Your task to perform on an android device: change the clock display to show seconds Image 0: 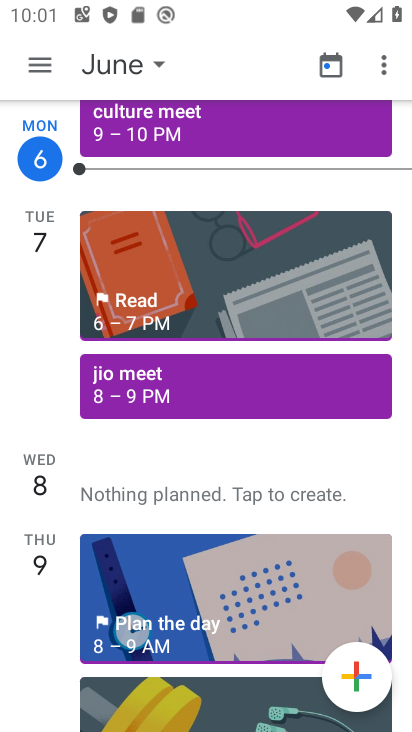
Step 0: press home button
Your task to perform on an android device: change the clock display to show seconds Image 1: 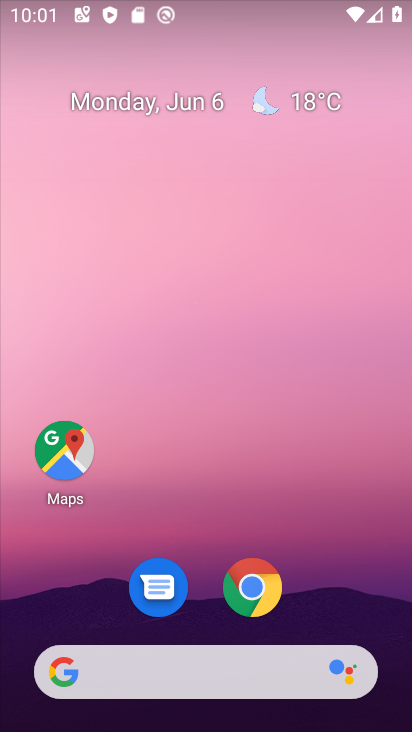
Step 1: drag from (301, 537) to (267, 0)
Your task to perform on an android device: change the clock display to show seconds Image 2: 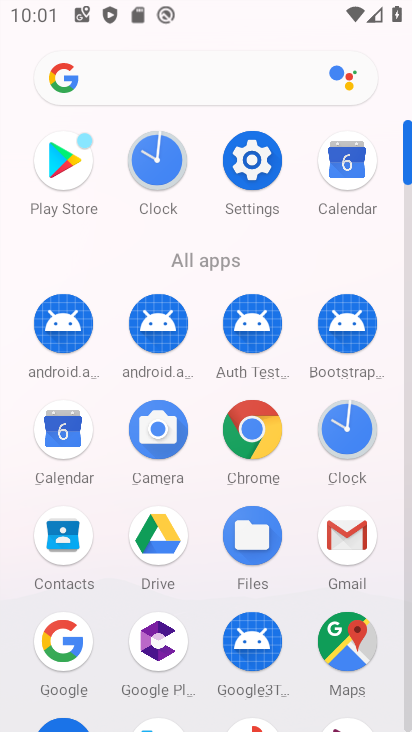
Step 2: click (149, 153)
Your task to perform on an android device: change the clock display to show seconds Image 3: 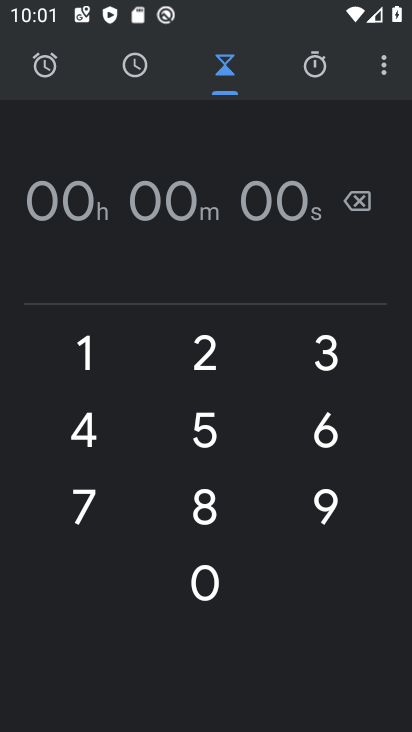
Step 3: click (381, 52)
Your task to perform on an android device: change the clock display to show seconds Image 4: 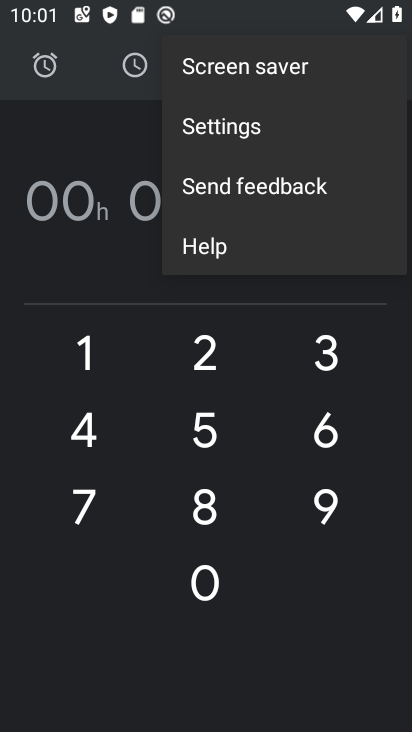
Step 4: click (303, 110)
Your task to perform on an android device: change the clock display to show seconds Image 5: 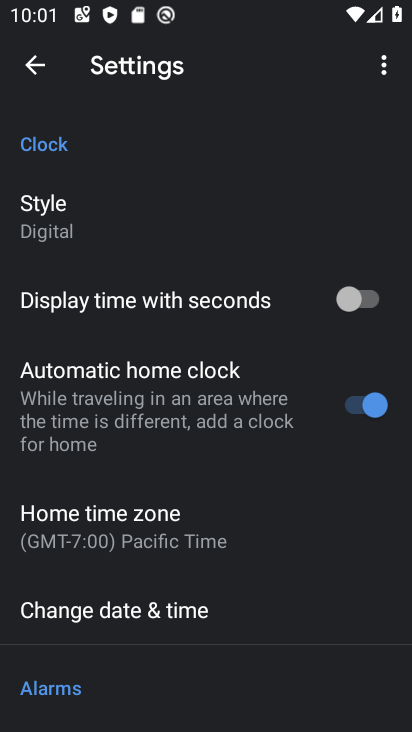
Step 5: drag from (159, 607) to (265, 194)
Your task to perform on an android device: change the clock display to show seconds Image 6: 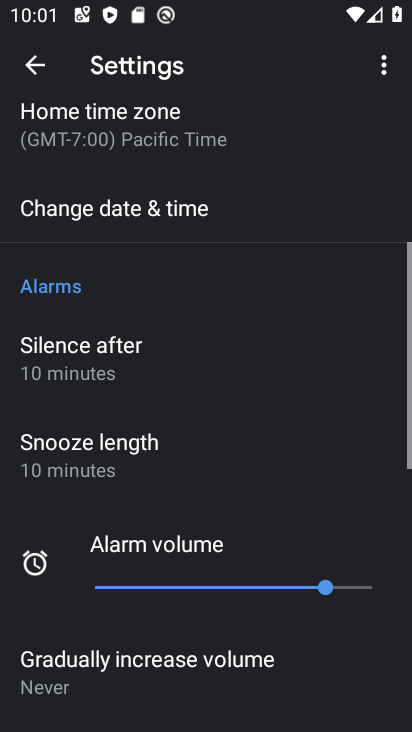
Step 6: drag from (207, 602) to (232, 324)
Your task to perform on an android device: change the clock display to show seconds Image 7: 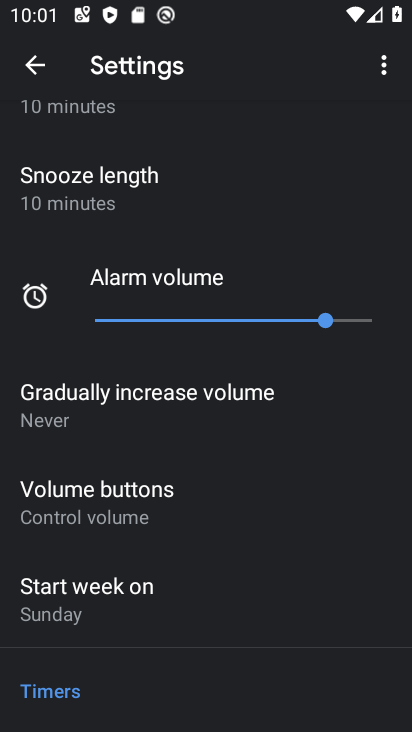
Step 7: drag from (168, 555) to (219, 125)
Your task to perform on an android device: change the clock display to show seconds Image 8: 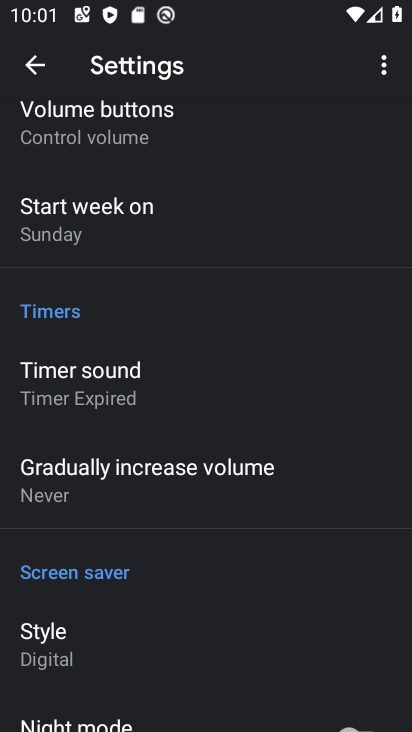
Step 8: drag from (194, 633) to (259, 47)
Your task to perform on an android device: change the clock display to show seconds Image 9: 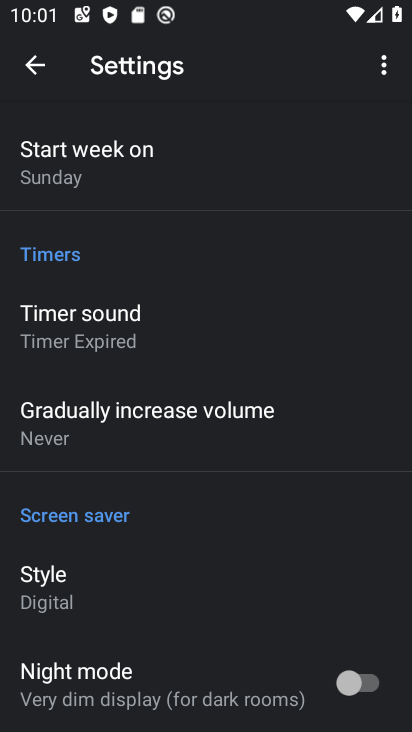
Step 9: drag from (297, 227) to (278, 394)
Your task to perform on an android device: change the clock display to show seconds Image 10: 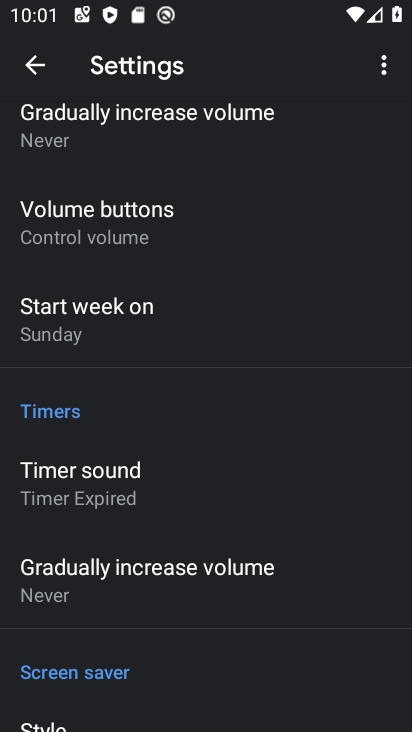
Step 10: drag from (258, 88) to (254, 484)
Your task to perform on an android device: change the clock display to show seconds Image 11: 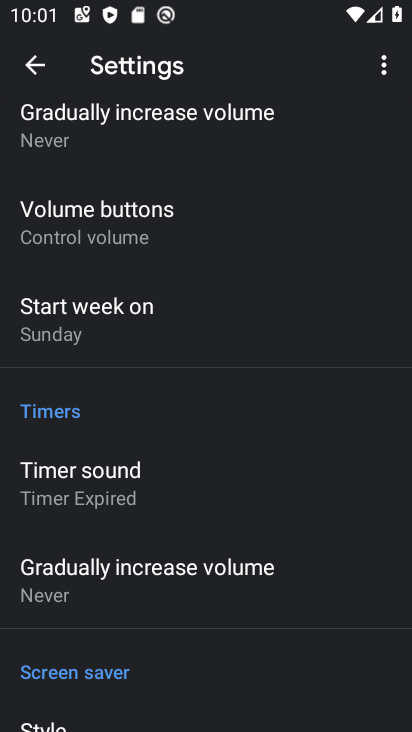
Step 11: drag from (242, 215) to (259, 604)
Your task to perform on an android device: change the clock display to show seconds Image 12: 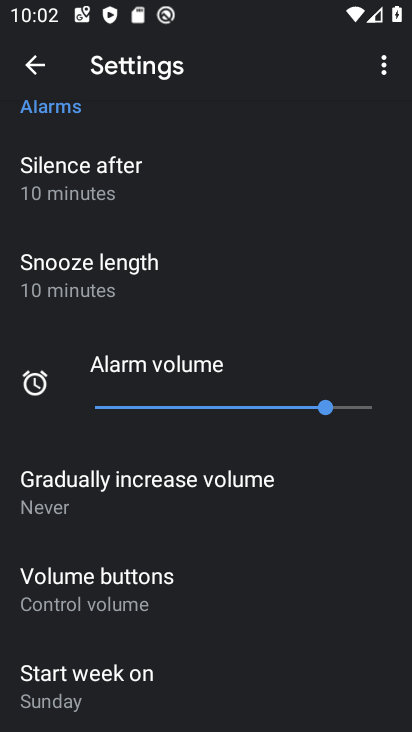
Step 12: drag from (297, 279) to (325, 632)
Your task to perform on an android device: change the clock display to show seconds Image 13: 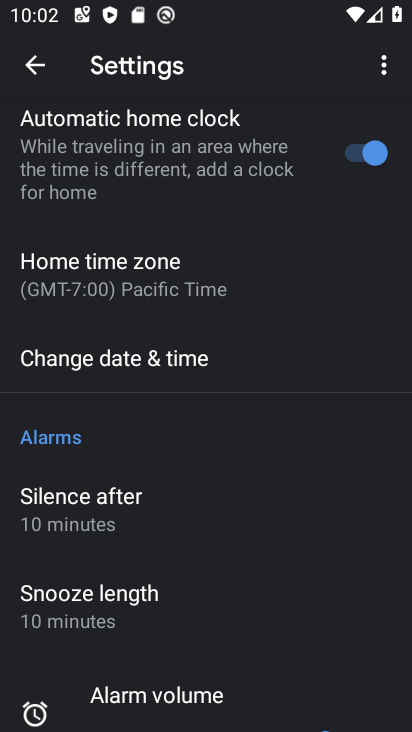
Step 13: drag from (302, 299) to (329, 519)
Your task to perform on an android device: change the clock display to show seconds Image 14: 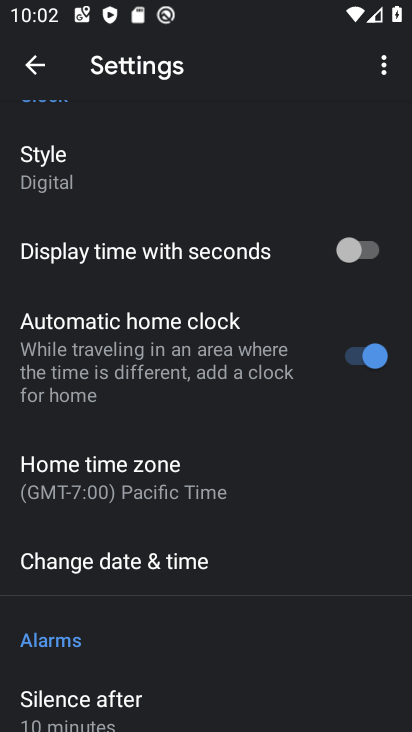
Step 14: drag from (278, 200) to (284, 568)
Your task to perform on an android device: change the clock display to show seconds Image 15: 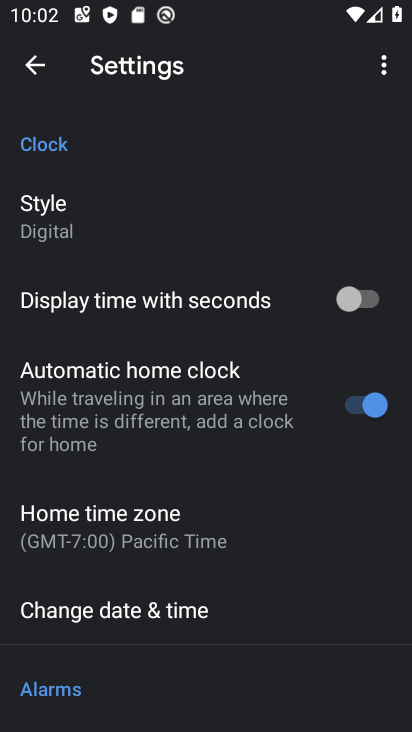
Step 15: click (378, 64)
Your task to perform on an android device: change the clock display to show seconds Image 16: 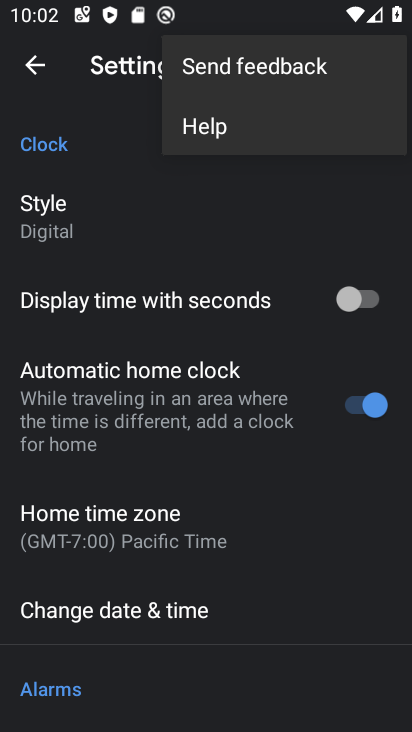
Step 16: click (369, 565)
Your task to perform on an android device: change the clock display to show seconds Image 17: 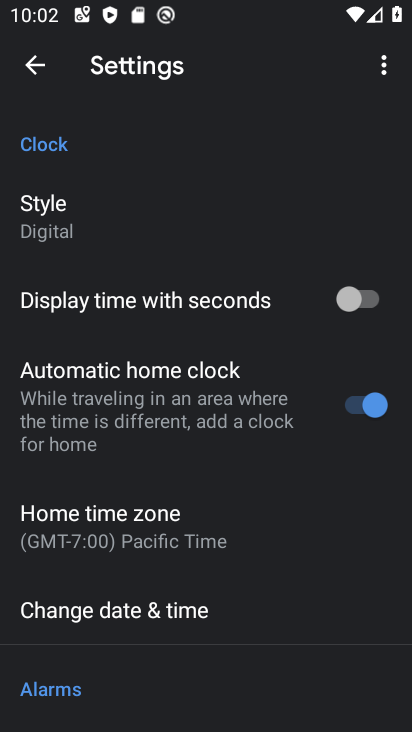
Step 17: drag from (296, 633) to (290, 411)
Your task to perform on an android device: change the clock display to show seconds Image 18: 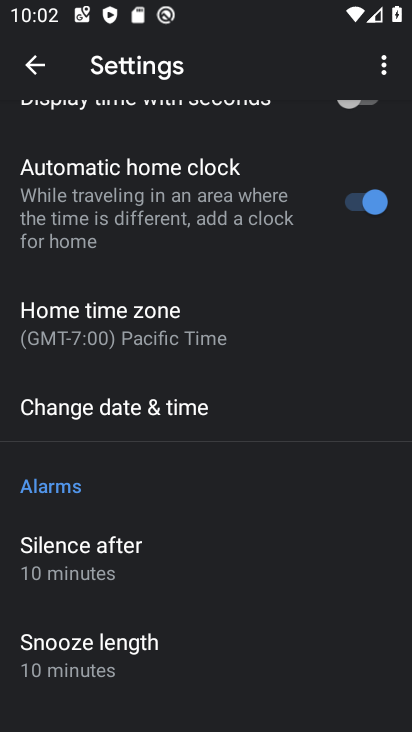
Step 18: click (236, 650)
Your task to perform on an android device: change the clock display to show seconds Image 19: 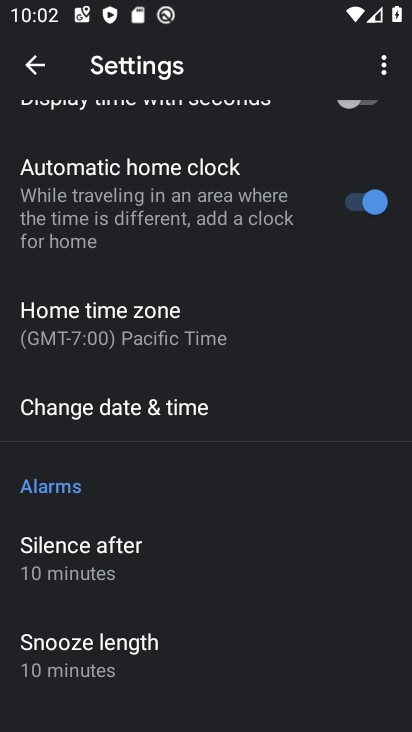
Step 19: task complete